Your task to perform on an android device: Open the Play Movies app and select the watchlist tab. Image 0: 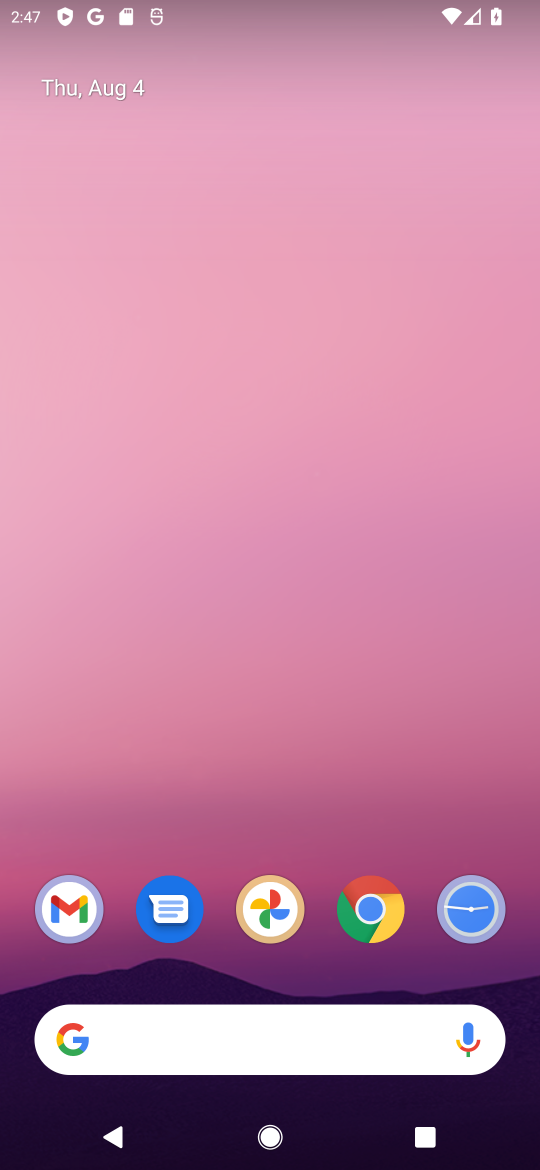
Step 0: drag from (251, 1038) to (525, 126)
Your task to perform on an android device: Open the Play Movies app and select the watchlist tab. Image 1: 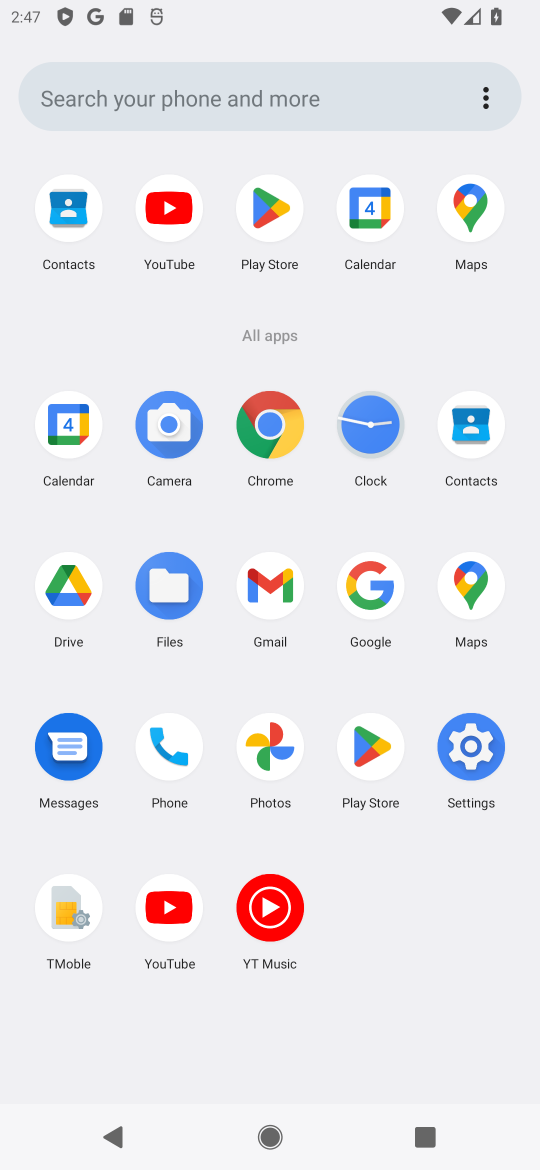
Step 1: task complete